Your task to perform on an android device: Open Youtube and go to the subscriptions tab Image 0: 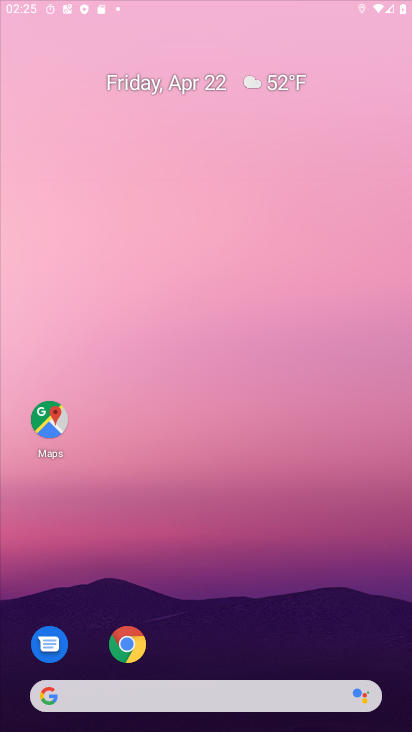
Step 0: click (305, 214)
Your task to perform on an android device: Open Youtube and go to the subscriptions tab Image 1: 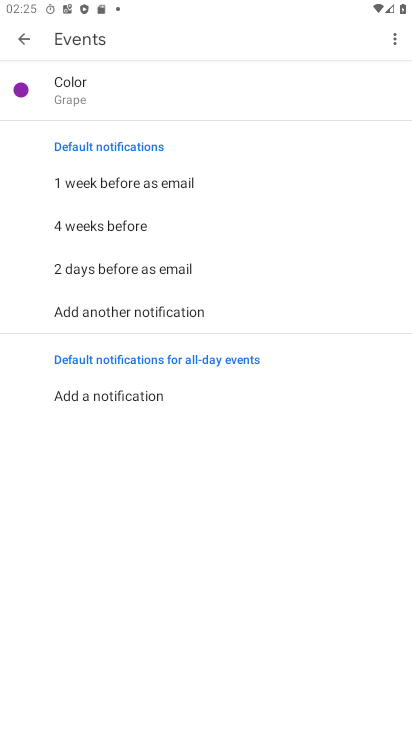
Step 1: task complete